Your task to perform on an android device: Open the calendar app, open the side menu, and click the "Day" option Image 0: 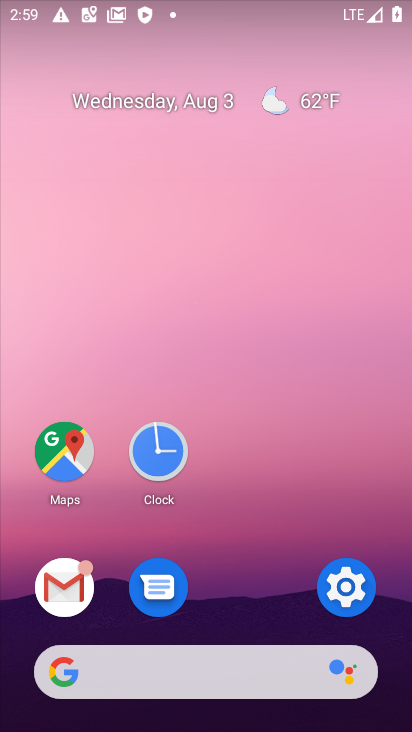
Step 0: drag from (251, 579) to (200, 45)
Your task to perform on an android device: Open the calendar app, open the side menu, and click the "Day" option Image 1: 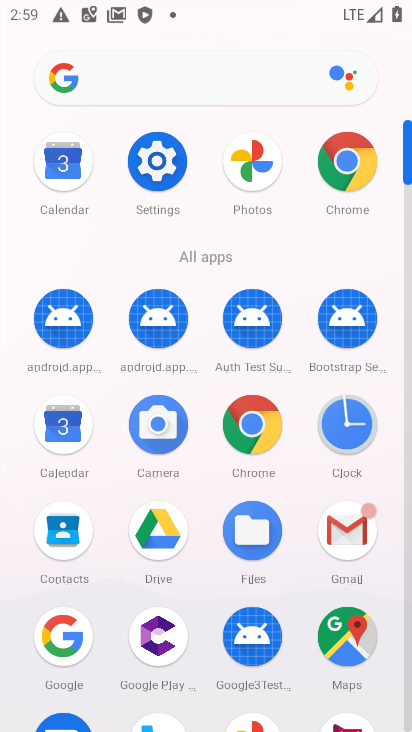
Step 1: click (55, 430)
Your task to perform on an android device: Open the calendar app, open the side menu, and click the "Day" option Image 2: 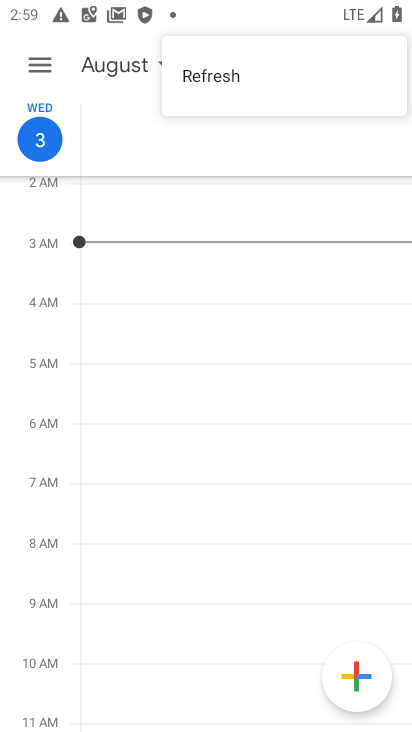
Step 2: click (42, 59)
Your task to perform on an android device: Open the calendar app, open the side menu, and click the "Day" option Image 3: 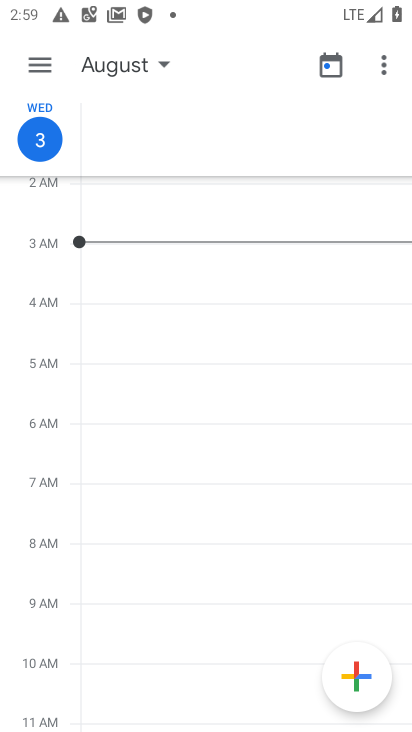
Step 3: click (33, 58)
Your task to perform on an android device: Open the calendar app, open the side menu, and click the "Day" option Image 4: 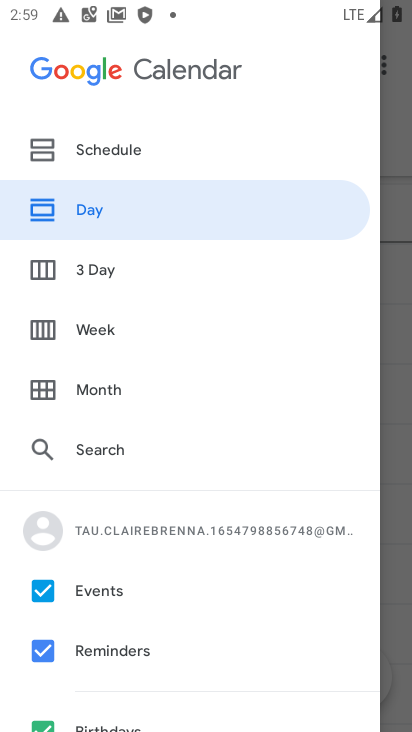
Step 4: click (100, 204)
Your task to perform on an android device: Open the calendar app, open the side menu, and click the "Day" option Image 5: 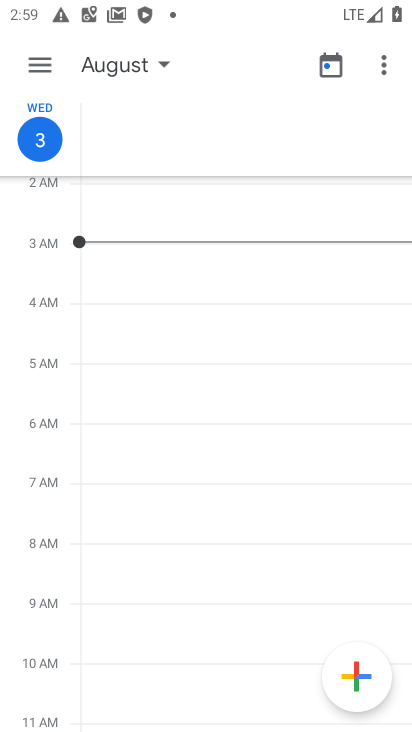
Step 5: task complete